Your task to perform on an android device: refresh tabs in the chrome app Image 0: 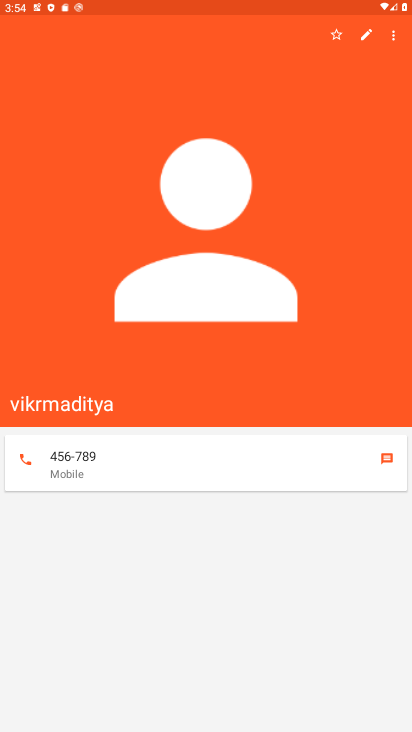
Step 0: press home button
Your task to perform on an android device: refresh tabs in the chrome app Image 1: 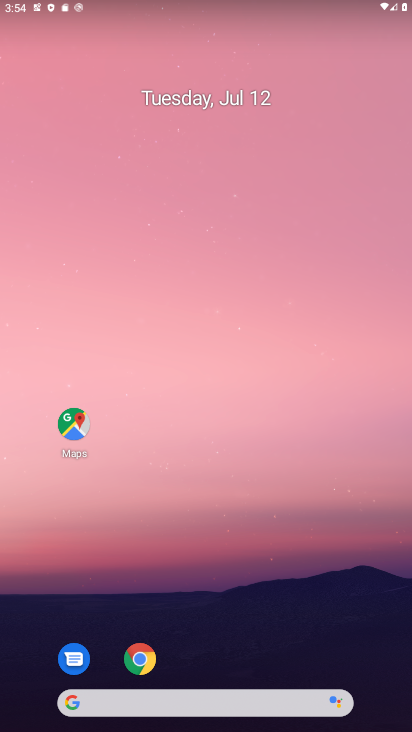
Step 1: click (145, 662)
Your task to perform on an android device: refresh tabs in the chrome app Image 2: 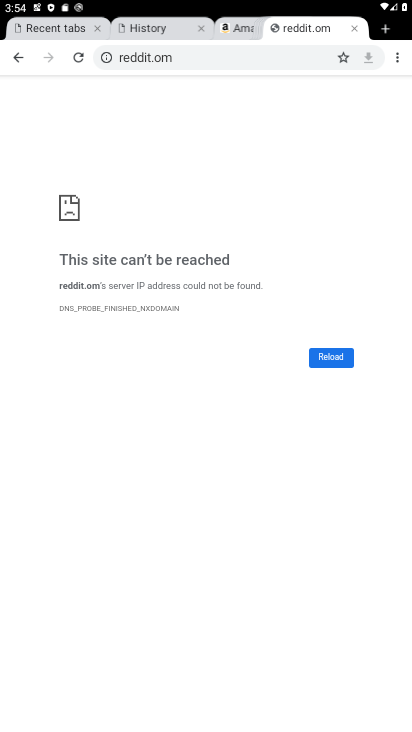
Step 2: click (75, 58)
Your task to perform on an android device: refresh tabs in the chrome app Image 3: 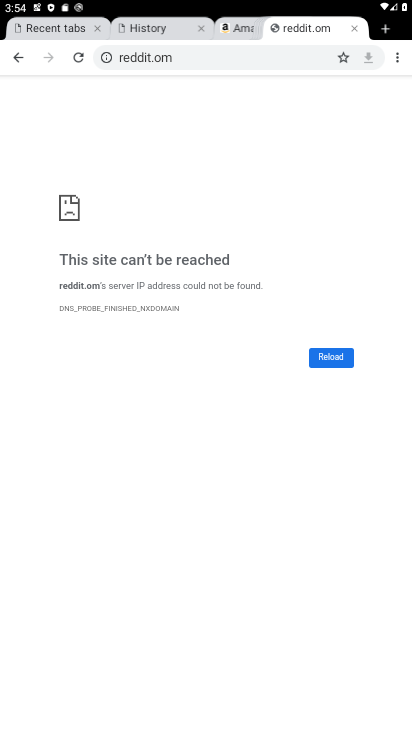
Step 3: task complete